Your task to perform on an android device: open device folders in google photos Image 0: 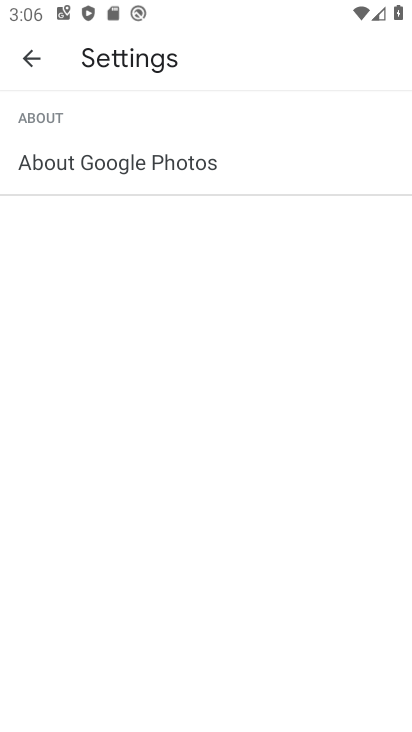
Step 0: press home button
Your task to perform on an android device: open device folders in google photos Image 1: 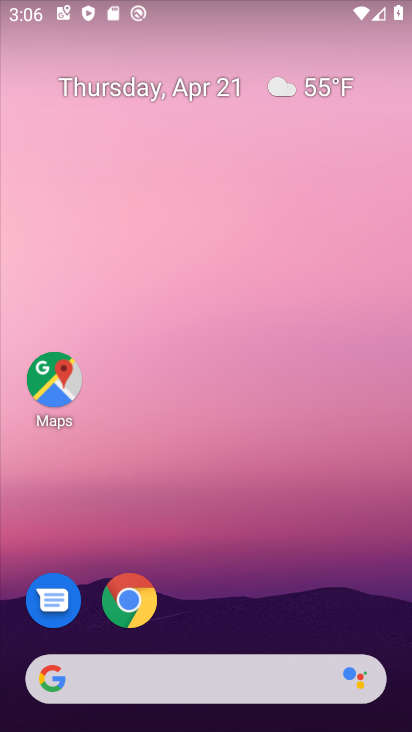
Step 1: drag from (139, 674) to (293, 73)
Your task to perform on an android device: open device folders in google photos Image 2: 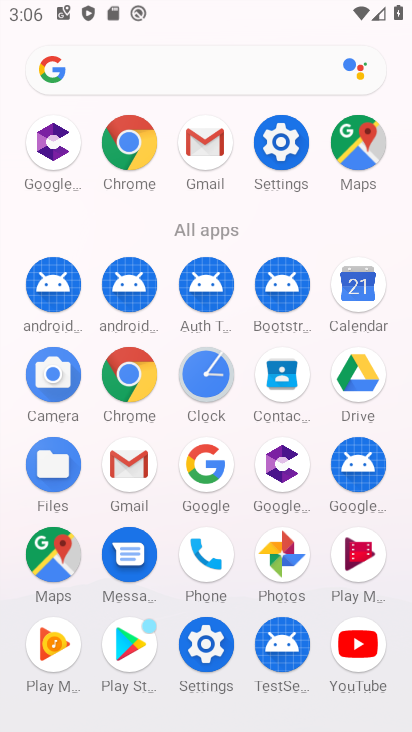
Step 2: click (289, 553)
Your task to perform on an android device: open device folders in google photos Image 3: 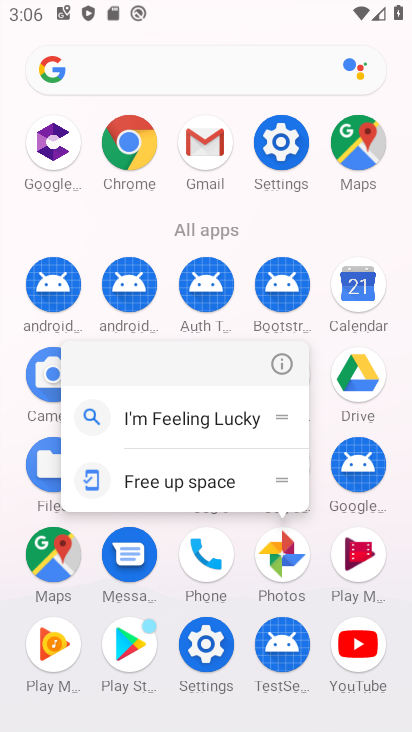
Step 3: click (284, 559)
Your task to perform on an android device: open device folders in google photos Image 4: 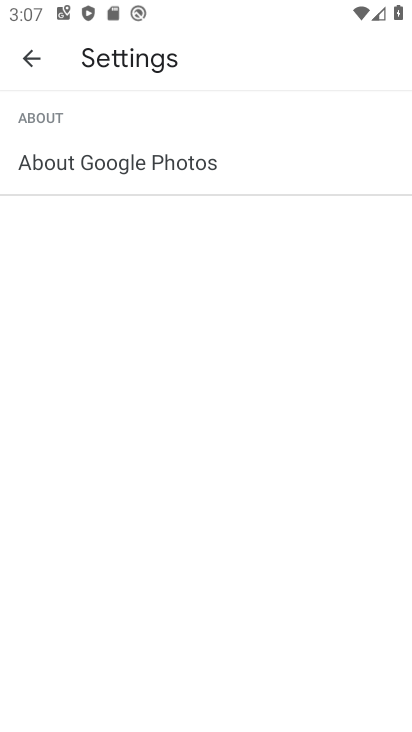
Step 4: click (24, 57)
Your task to perform on an android device: open device folders in google photos Image 5: 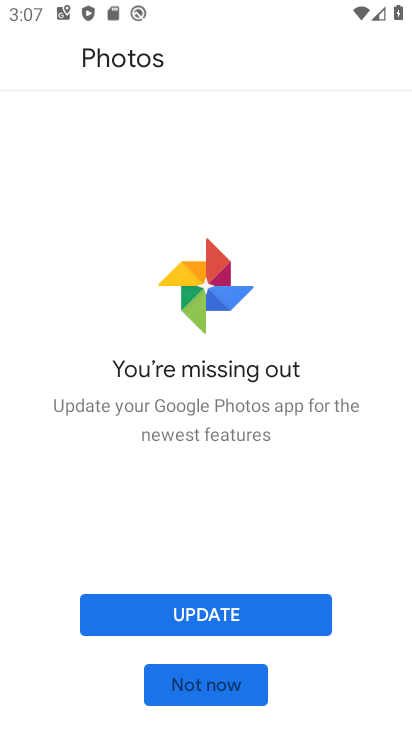
Step 5: click (231, 683)
Your task to perform on an android device: open device folders in google photos Image 6: 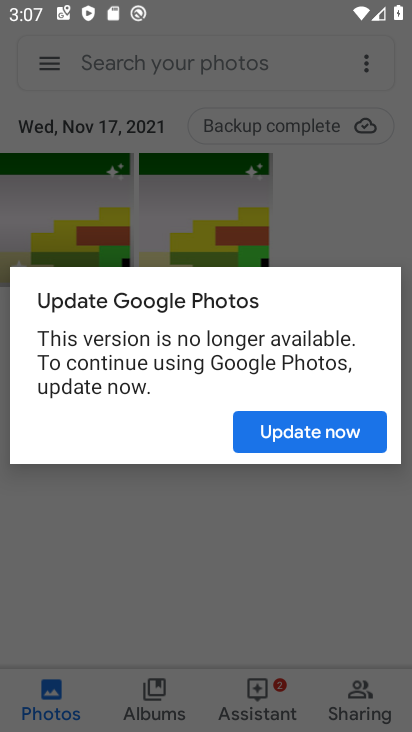
Step 6: click (297, 427)
Your task to perform on an android device: open device folders in google photos Image 7: 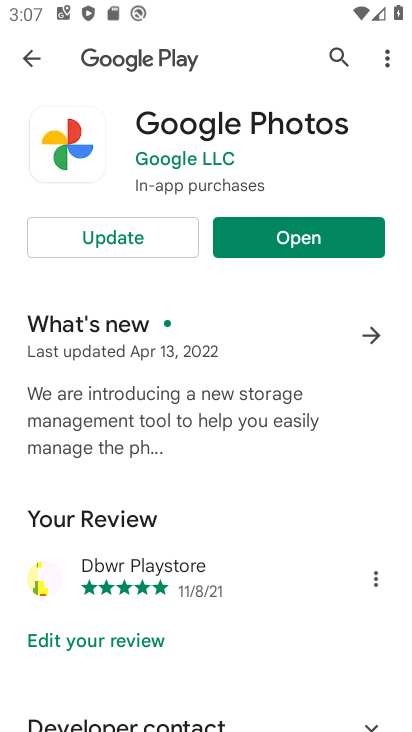
Step 7: click (300, 235)
Your task to perform on an android device: open device folders in google photos Image 8: 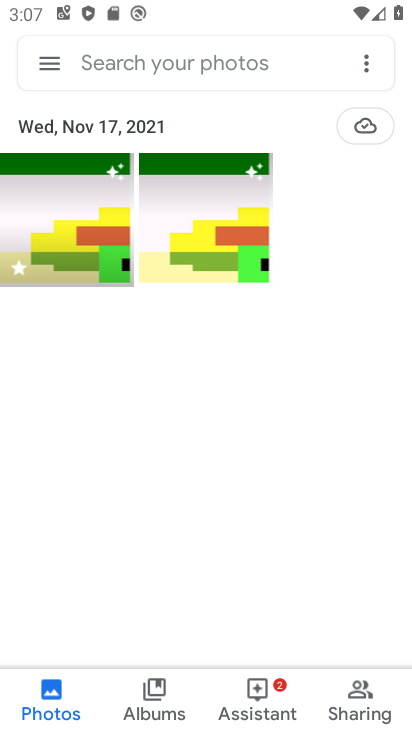
Step 8: click (55, 61)
Your task to perform on an android device: open device folders in google photos Image 9: 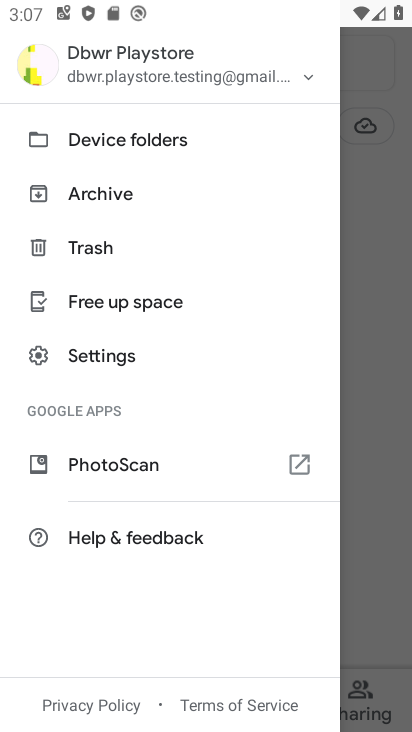
Step 9: click (120, 141)
Your task to perform on an android device: open device folders in google photos Image 10: 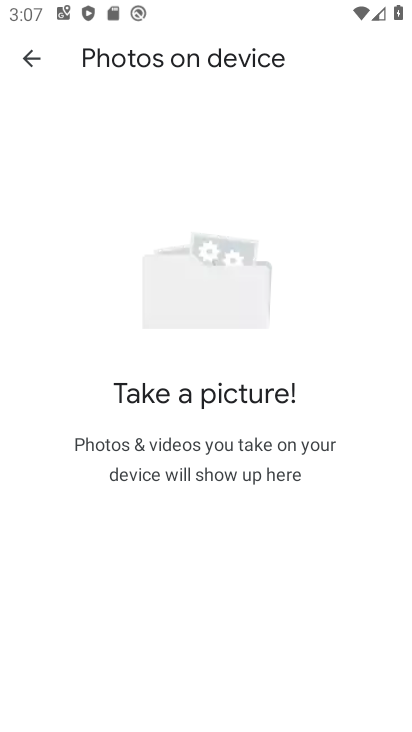
Step 10: task complete